Your task to perform on an android device: move an email to a new category in the gmail app Image 0: 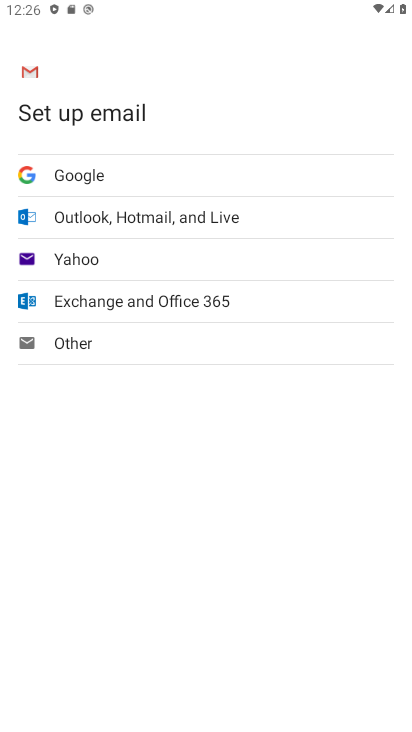
Step 0: press home button
Your task to perform on an android device: move an email to a new category in the gmail app Image 1: 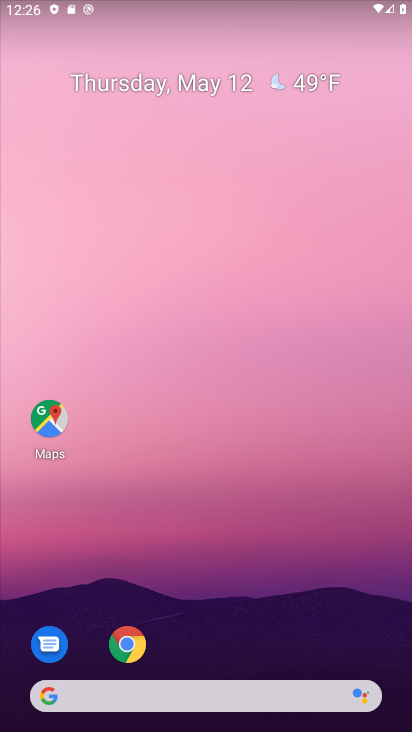
Step 1: drag from (278, 566) to (254, 213)
Your task to perform on an android device: move an email to a new category in the gmail app Image 2: 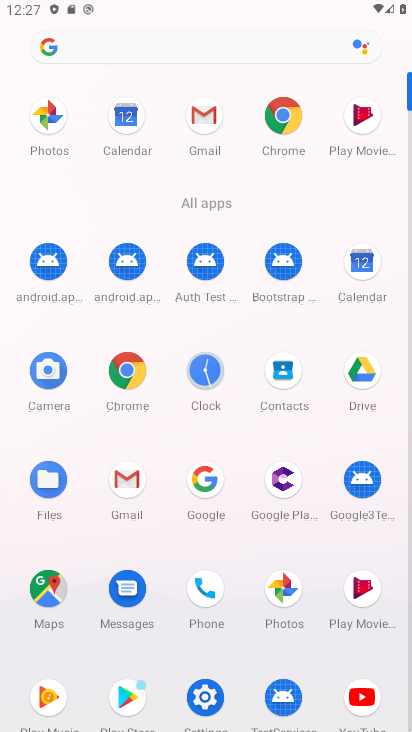
Step 2: click (122, 473)
Your task to perform on an android device: move an email to a new category in the gmail app Image 3: 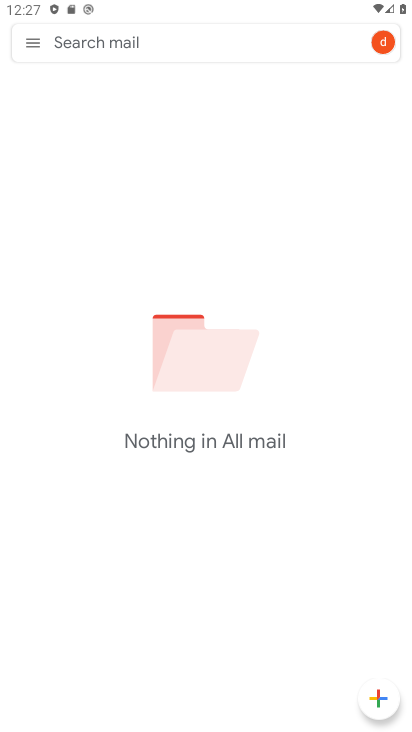
Step 3: click (26, 40)
Your task to perform on an android device: move an email to a new category in the gmail app Image 4: 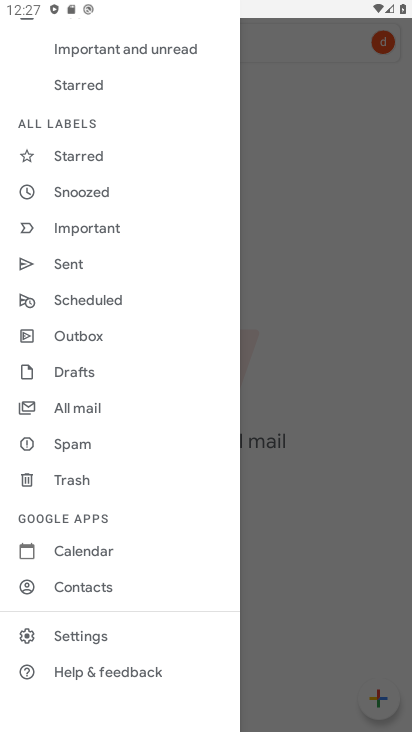
Step 4: task complete